Your task to perform on an android device: turn off translation in the chrome app Image 0: 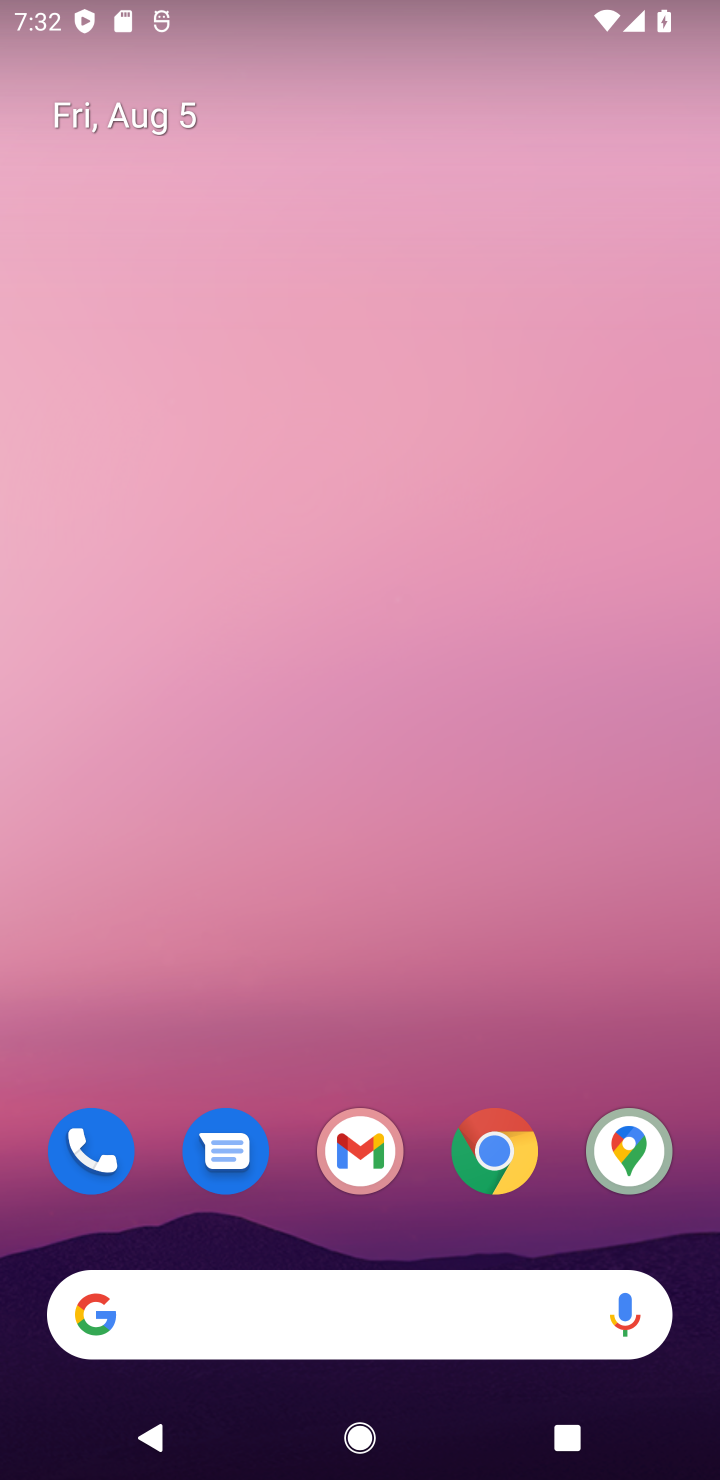
Step 0: drag from (374, 241) to (626, 94)
Your task to perform on an android device: turn off translation in the chrome app Image 1: 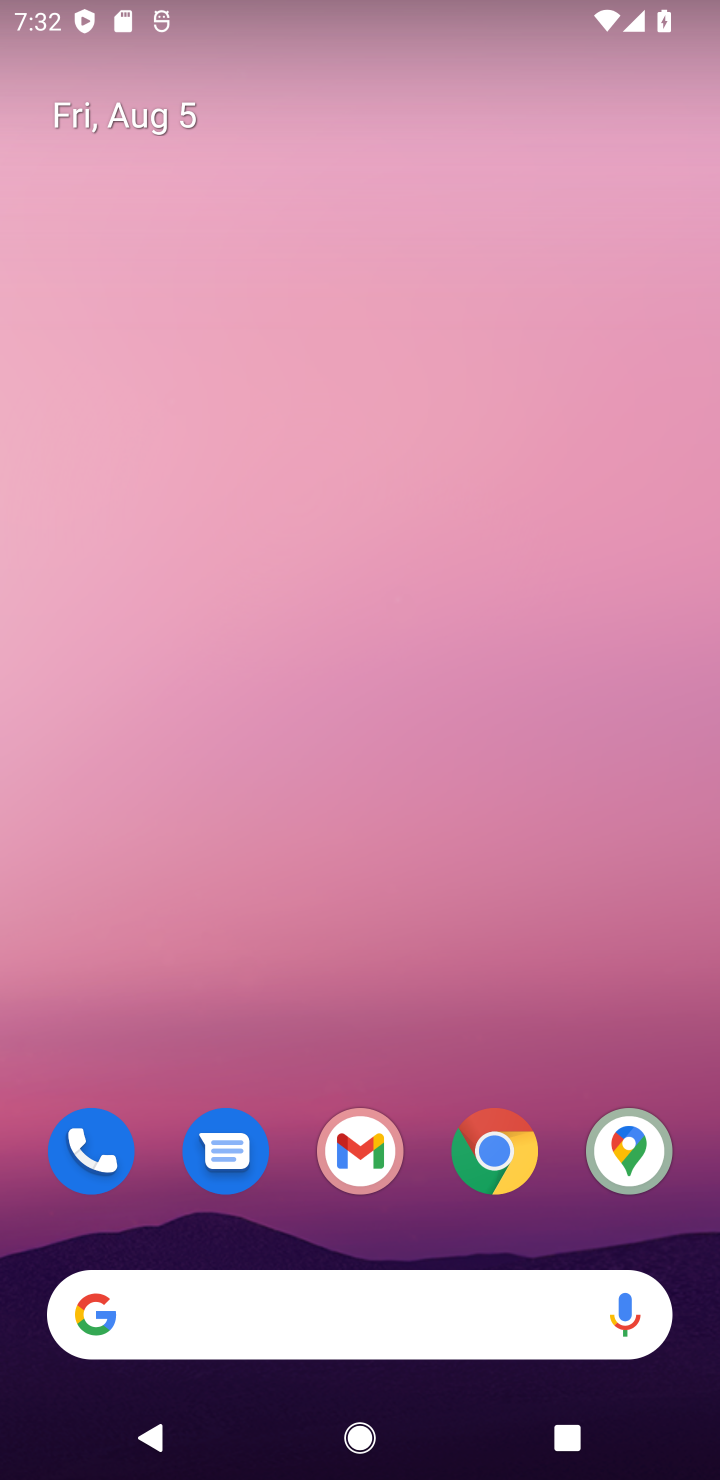
Step 1: drag from (356, 1245) to (356, 15)
Your task to perform on an android device: turn off translation in the chrome app Image 2: 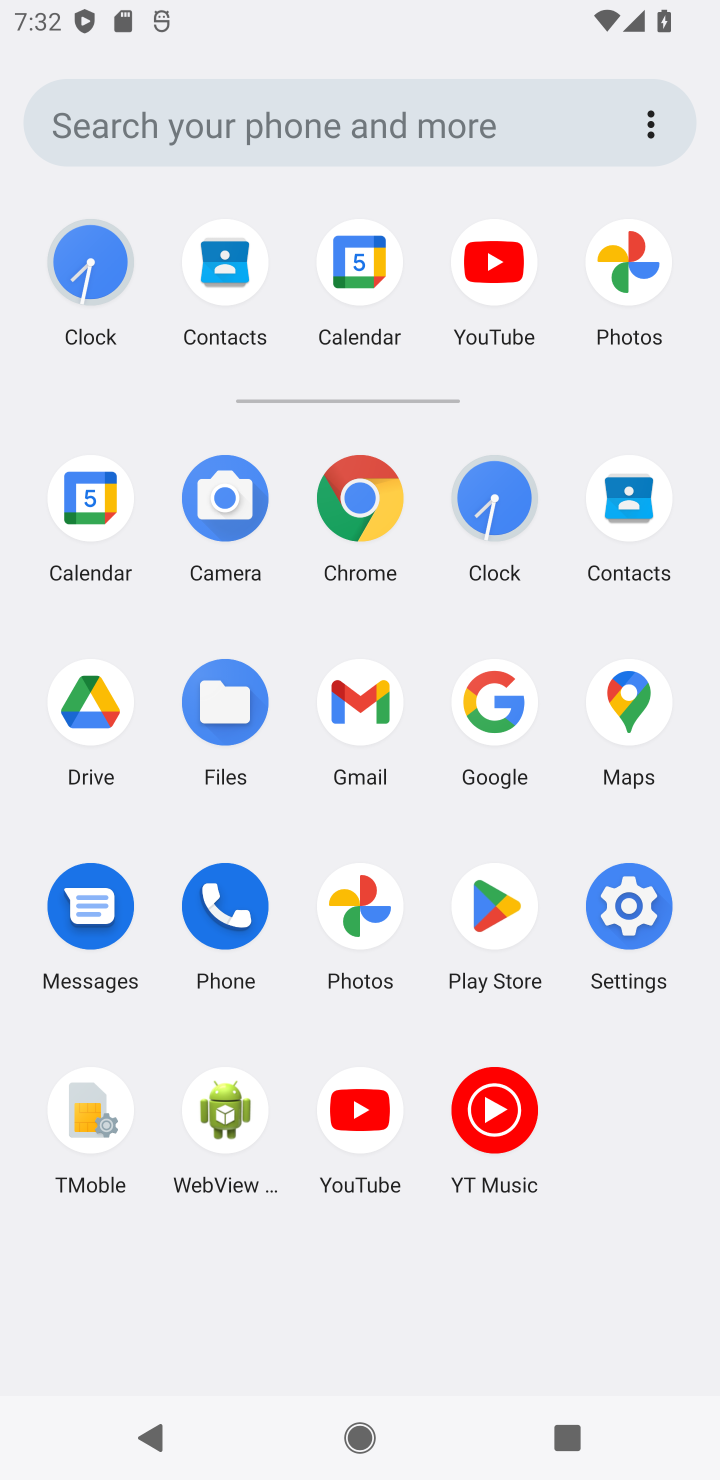
Step 2: click (356, 528)
Your task to perform on an android device: turn off translation in the chrome app Image 3: 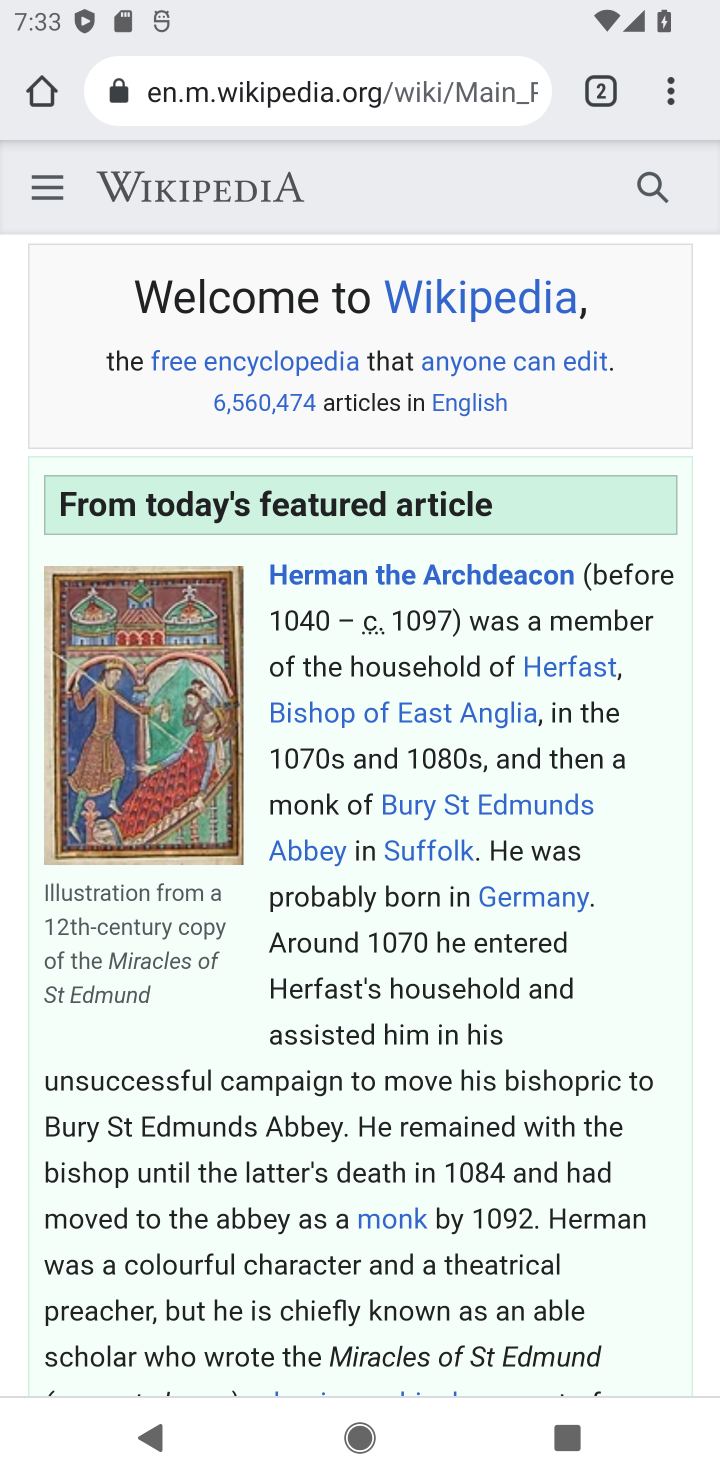
Step 3: drag from (670, 92) to (375, 1245)
Your task to perform on an android device: turn off translation in the chrome app Image 4: 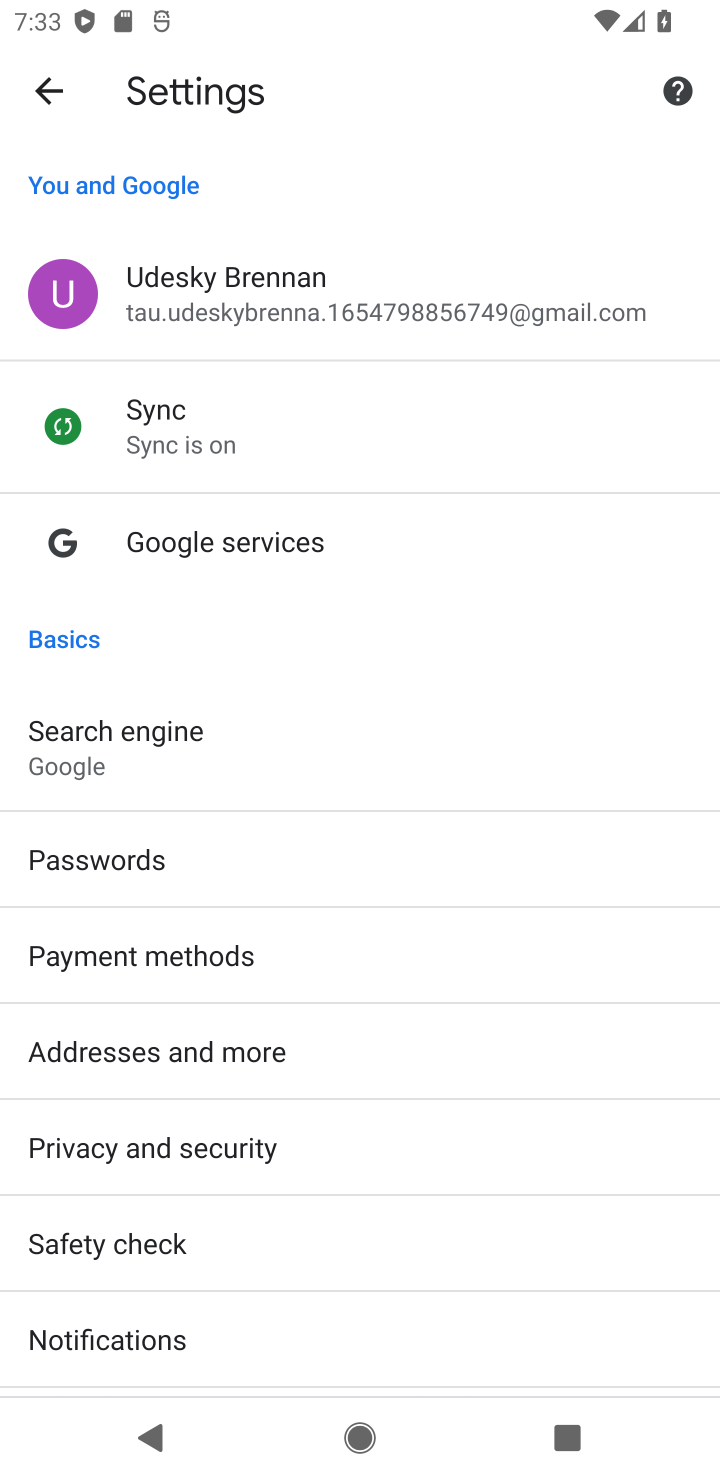
Step 4: drag from (245, 1194) to (245, 364)
Your task to perform on an android device: turn off translation in the chrome app Image 5: 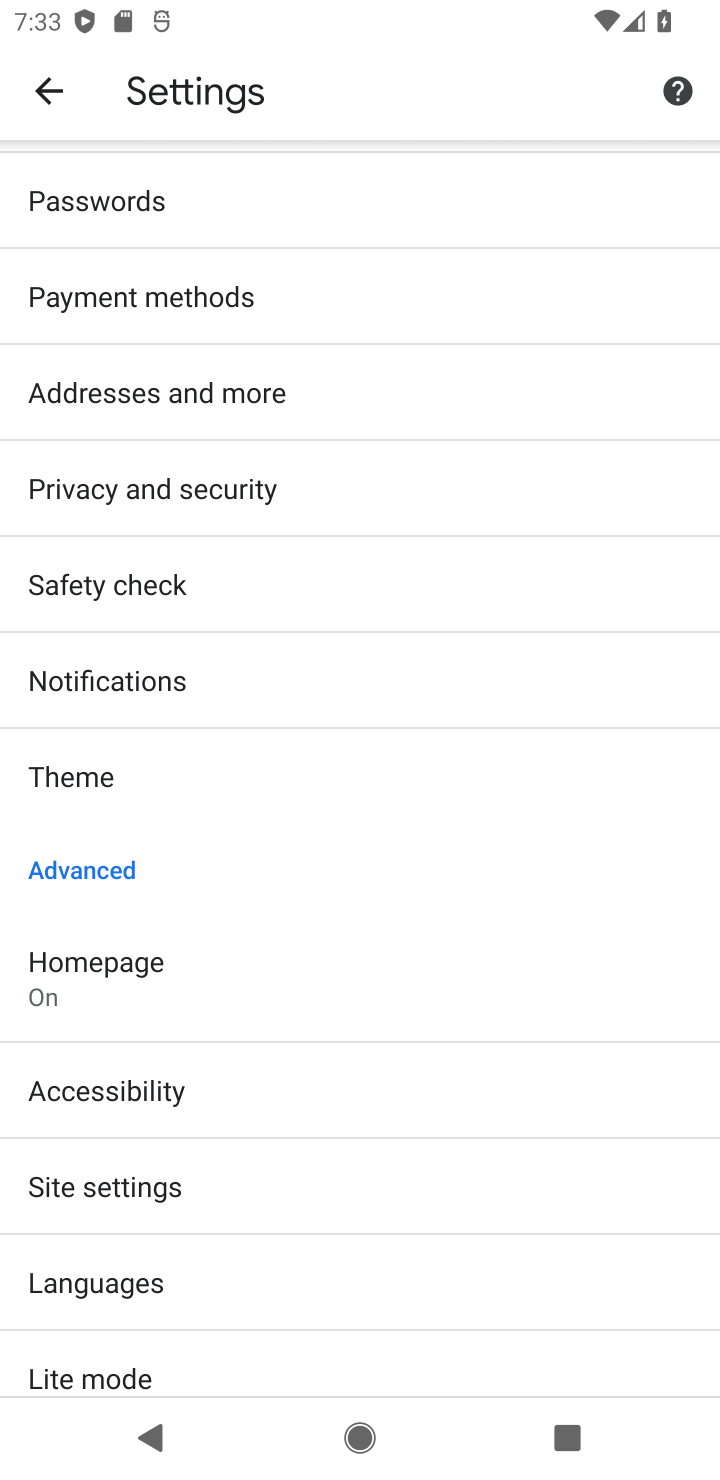
Step 5: drag from (278, 1270) to (280, 693)
Your task to perform on an android device: turn off translation in the chrome app Image 6: 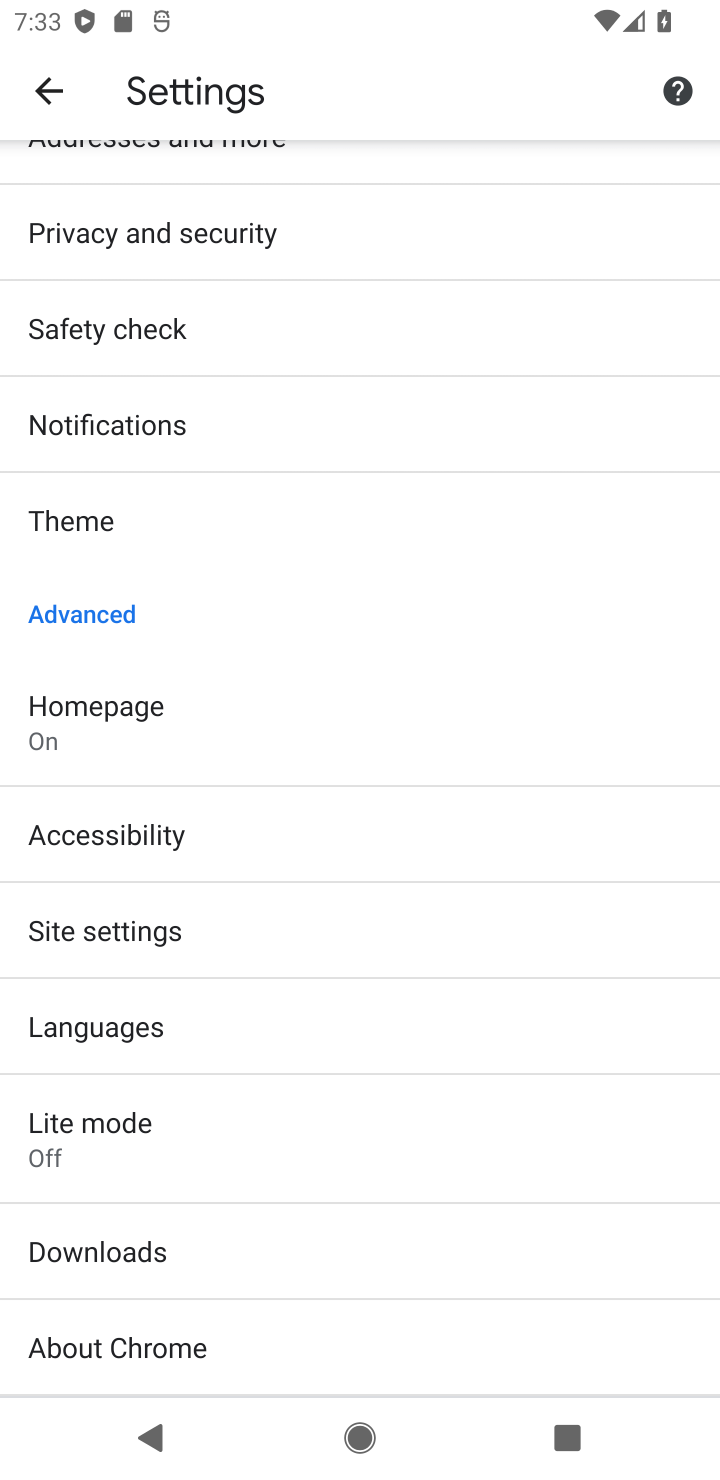
Step 6: click (52, 1019)
Your task to perform on an android device: turn off translation in the chrome app Image 7: 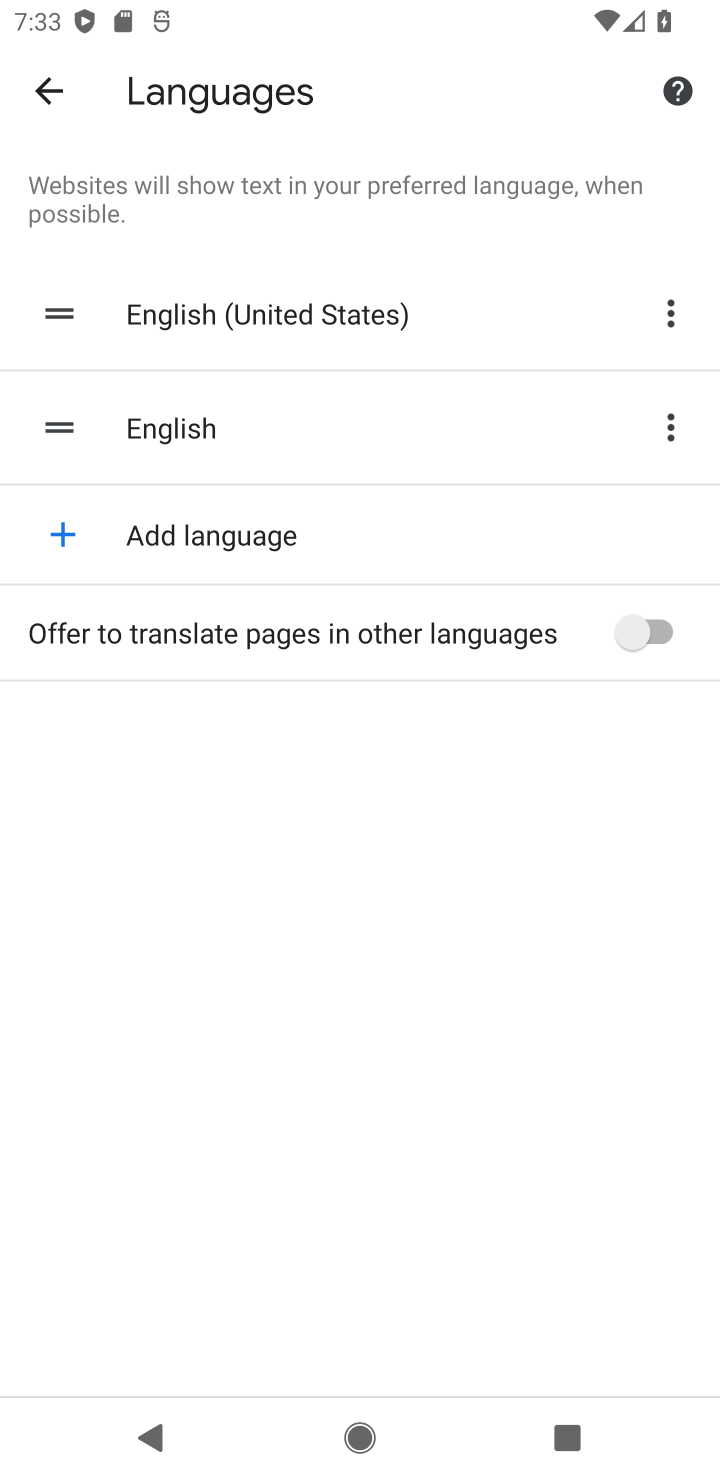
Step 7: task complete